Your task to perform on an android device: Go to Maps Image 0: 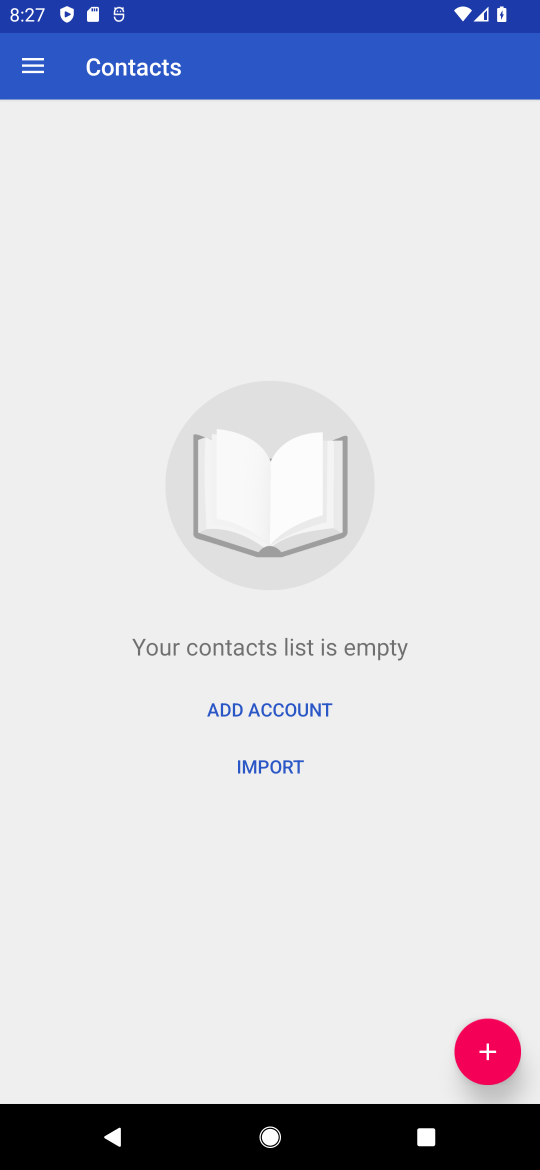
Step 0: press back button
Your task to perform on an android device: Go to Maps Image 1: 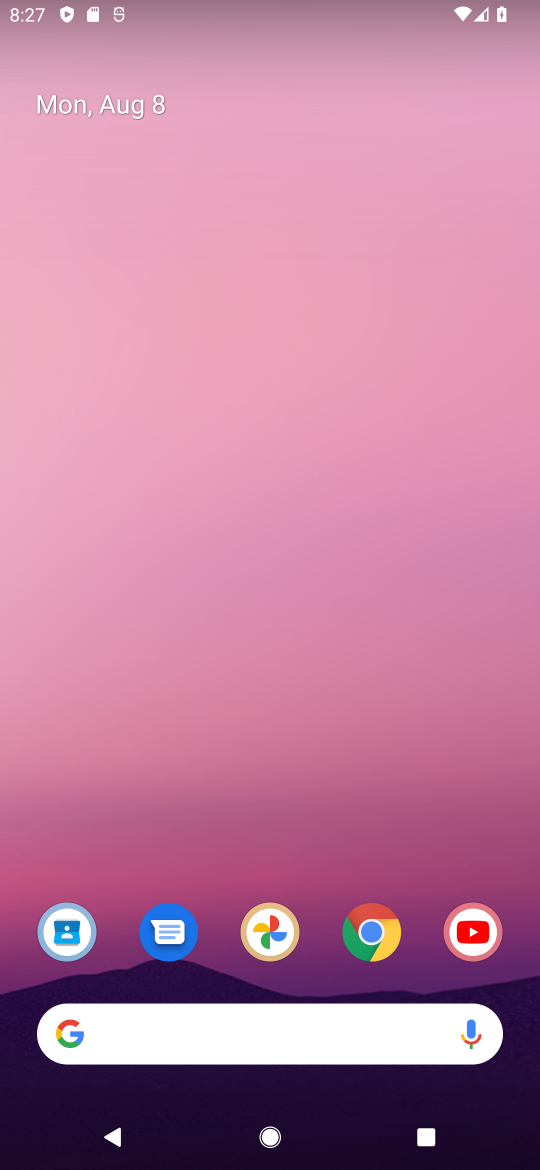
Step 1: drag from (210, 904) to (296, 10)
Your task to perform on an android device: Go to Maps Image 2: 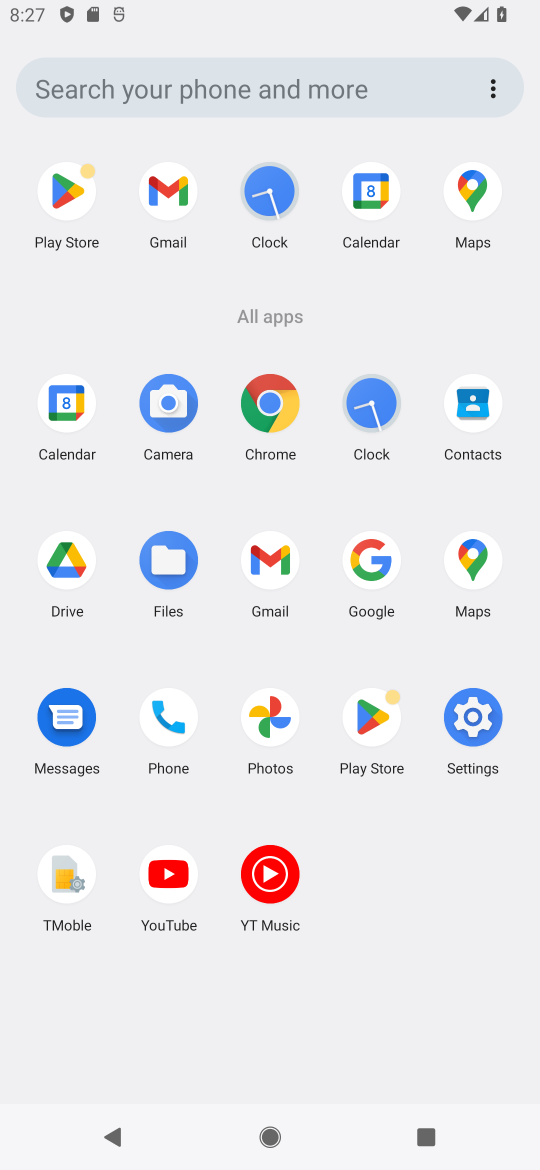
Step 2: click (489, 560)
Your task to perform on an android device: Go to Maps Image 3: 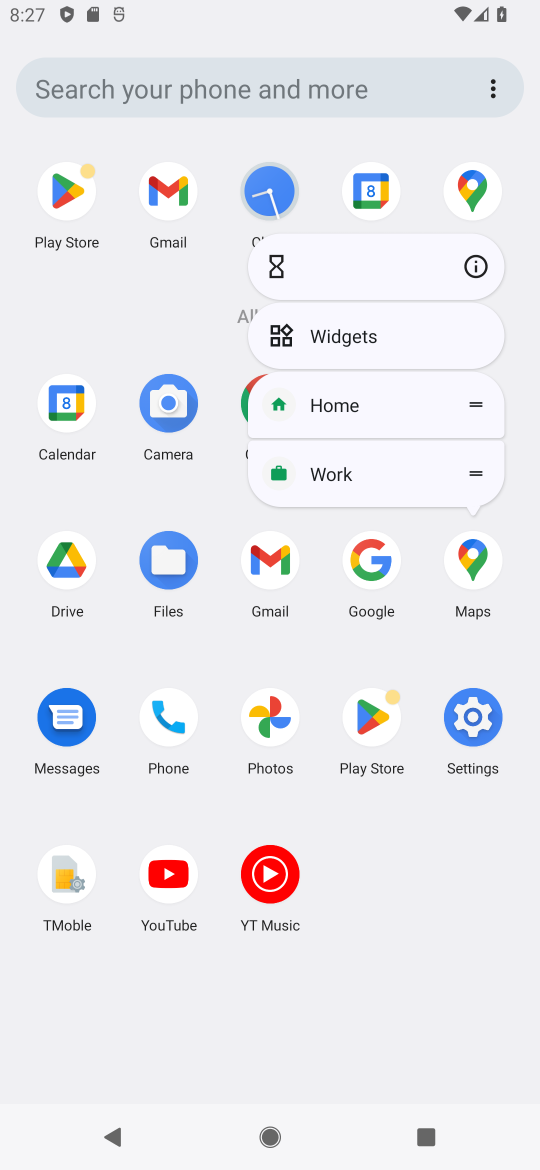
Step 3: click (474, 565)
Your task to perform on an android device: Go to Maps Image 4: 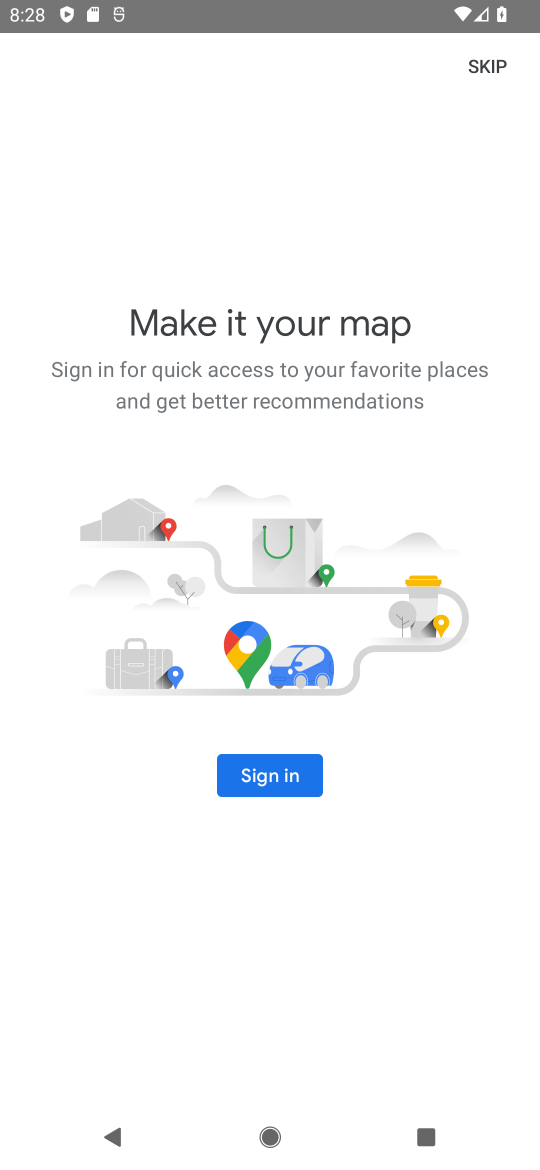
Step 4: task complete